Your task to perform on an android device: Go to calendar. Show me events next week Image 0: 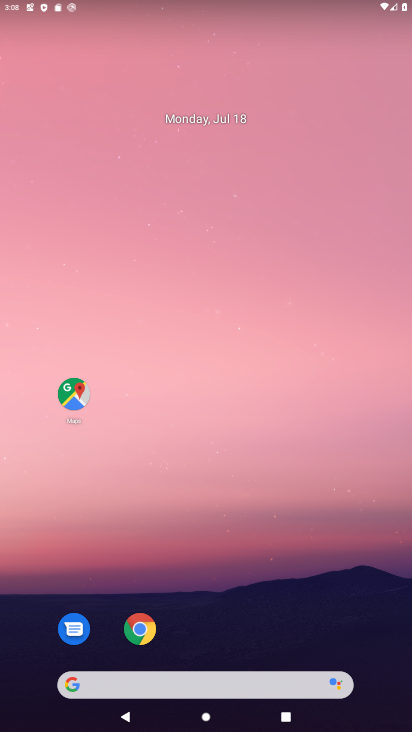
Step 0: drag from (226, 640) to (194, 262)
Your task to perform on an android device: Go to calendar. Show me events next week Image 1: 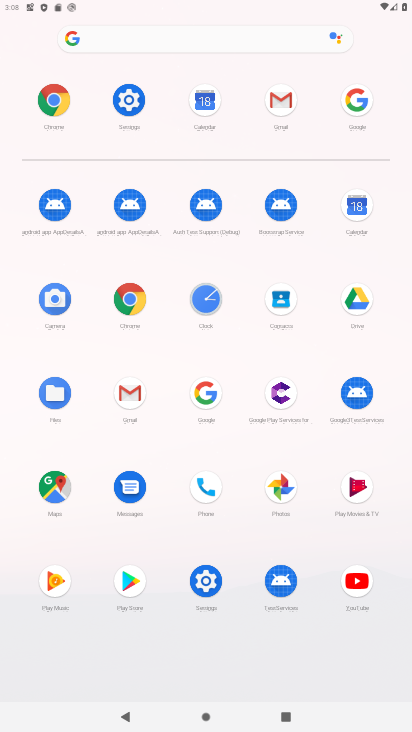
Step 1: click (347, 213)
Your task to perform on an android device: Go to calendar. Show me events next week Image 2: 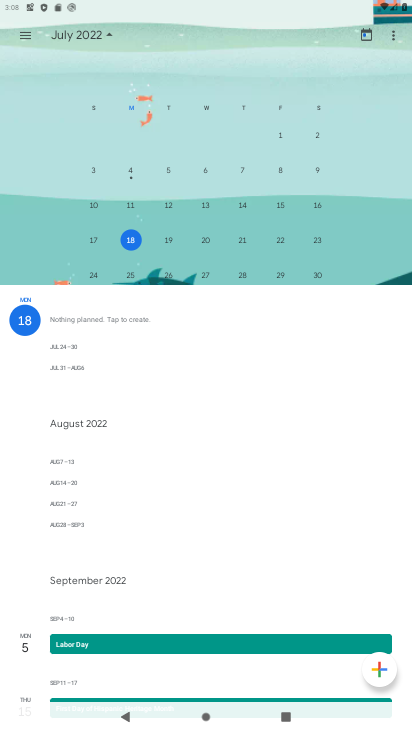
Step 2: click (125, 275)
Your task to perform on an android device: Go to calendar. Show me events next week Image 3: 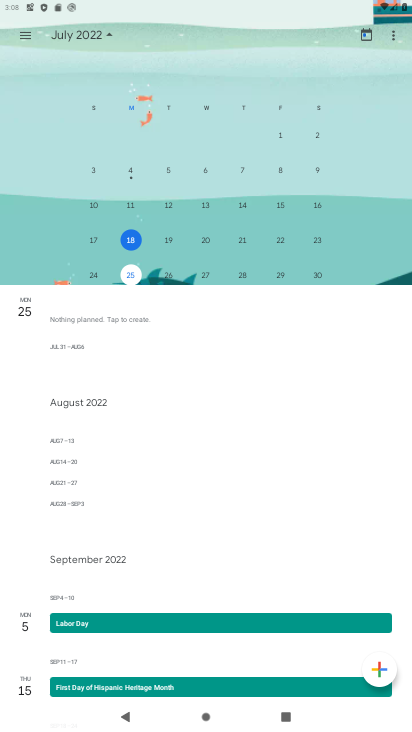
Step 3: task complete